Your task to perform on an android device: Toggle the flashlight Image 0: 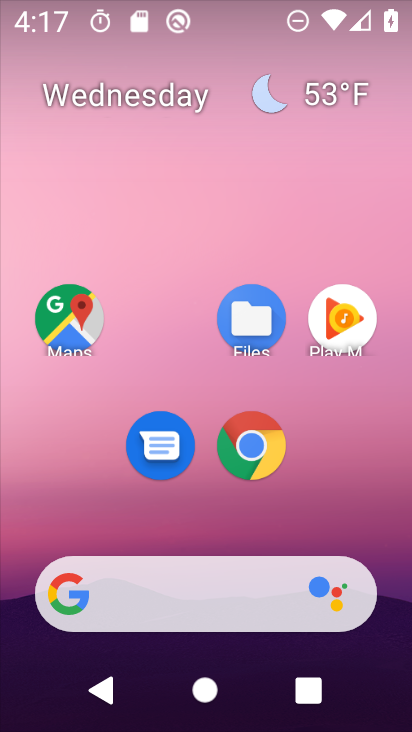
Step 0: drag from (339, 382) to (313, 155)
Your task to perform on an android device: Toggle the flashlight Image 1: 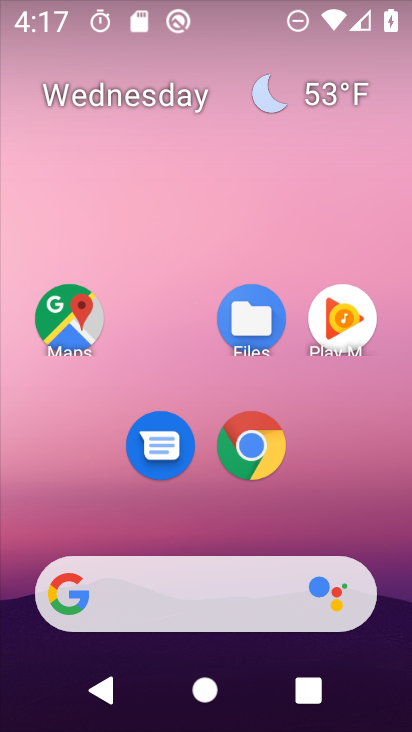
Step 1: drag from (323, 537) to (341, 130)
Your task to perform on an android device: Toggle the flashlight Image 2: 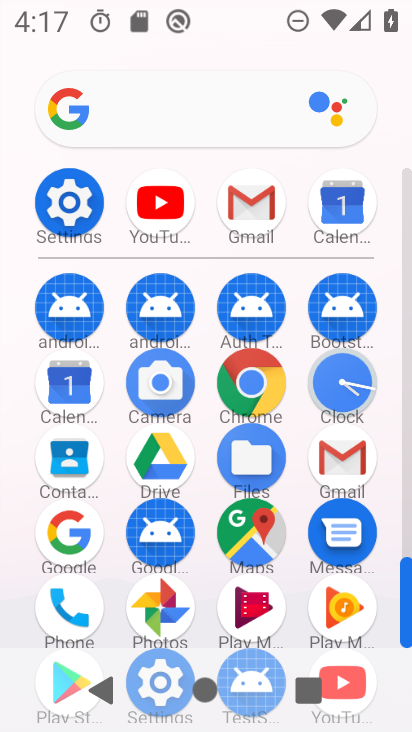
Step 2: click (53, 203)
Your task to perform on an android device: Toggle the flashlight Image 3: 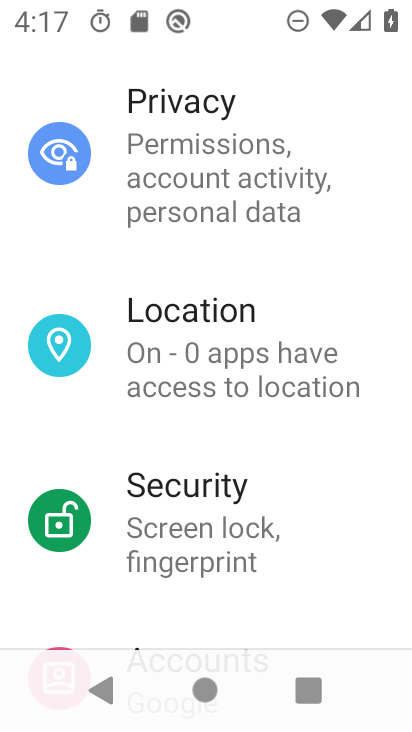
Step 3: drag from (295, 189) to (326, 614)
Your task to perform on an android device: Toggle the flashlight Image 4: 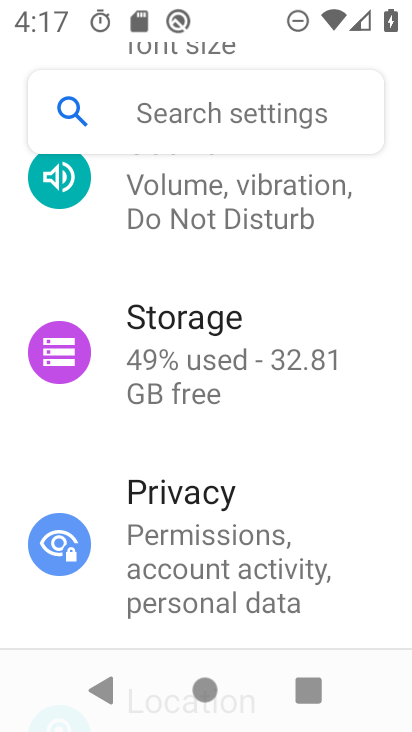
Step 4: drag from (301, 149) to (300, 476)
Your task to perform on an android device: Toggle the flashlight Image 5: 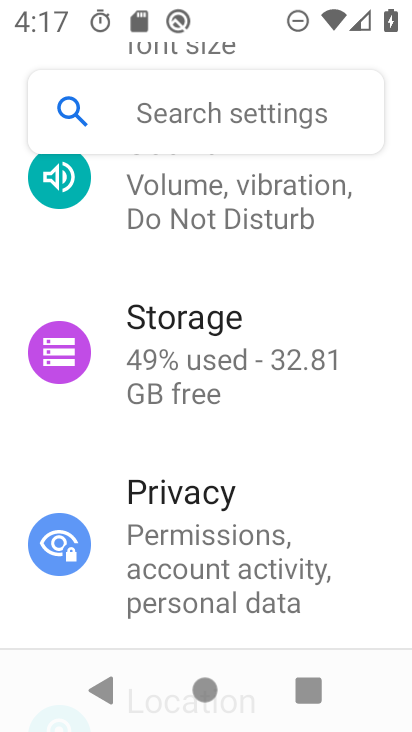
Step 5: drag from (285, 389) to (287, 127)
Your task to perform on an android device: Toggle the flashlight Image 6: 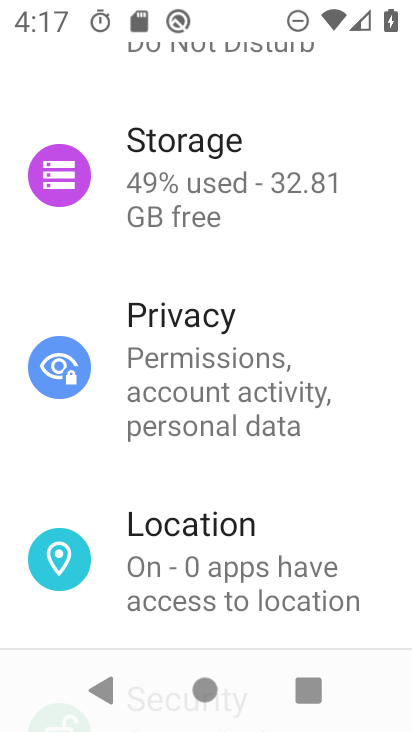
Step 6: drag from (330, 497) to (313, 182)
Your task to perform on an android device: Toggle the flashlight Image 7: 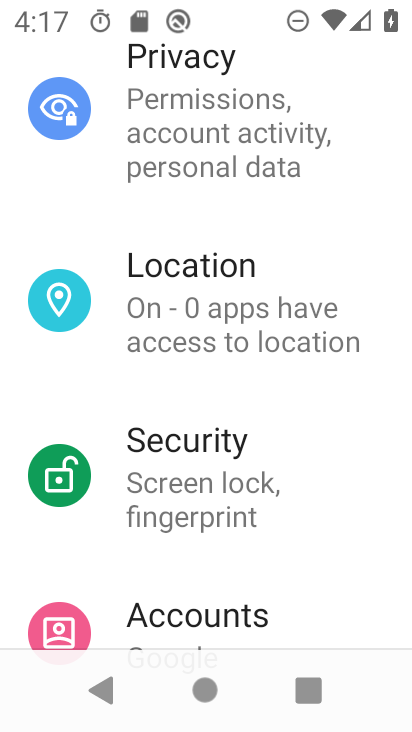
Step 7: drag from (340, 188) to (324, 501)
Your task to perform on an android device: Toggle the flashlight Image 8: 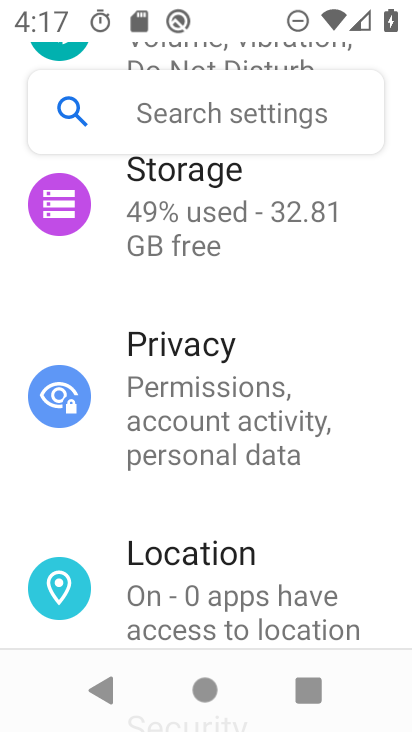
Step 8: drag from (332, 205) to (325, 555)
Your task to perform on an android device: Toggle the flashlight Image 9: 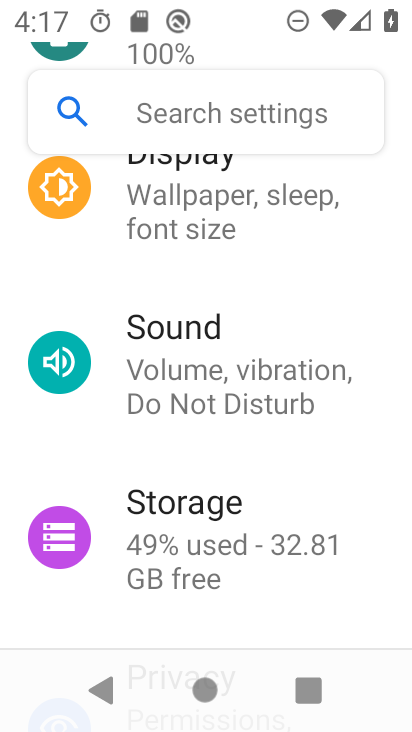
Step 9: drag from (352, 303) to (338, 509)
Your task to perform on an android device: Toggle the flashlight Image 10: 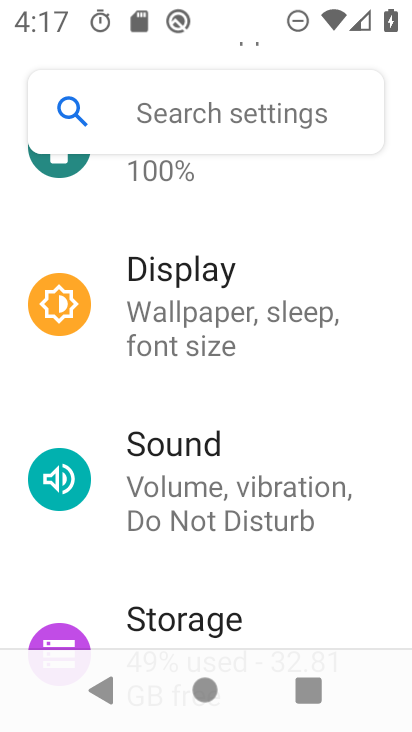
Step 10: click (281, 353)
Your task to perform on an android device: Toggle the flashlight Image 11: 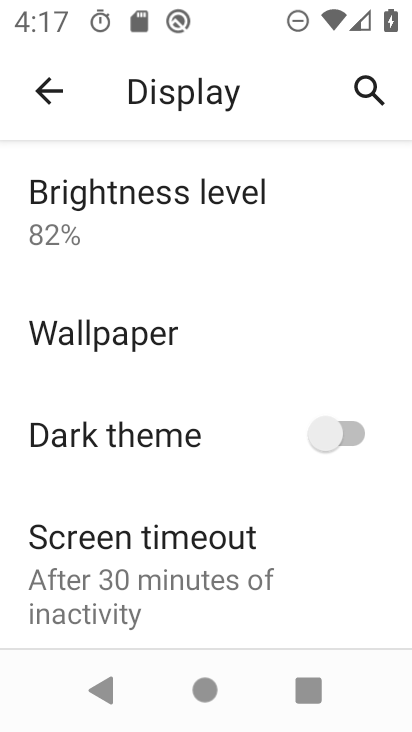
Step 11: task complete